Your task to perform on an android device: open wifi settings Image 0: 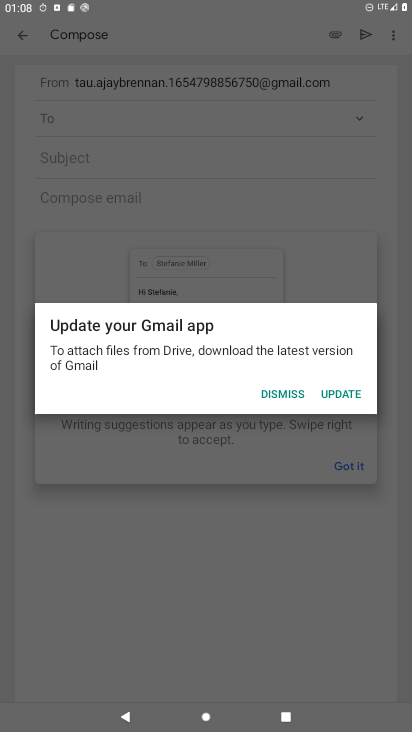
Step 0: press home button
Your task to perform on an android device: open wifi settings Image 1: 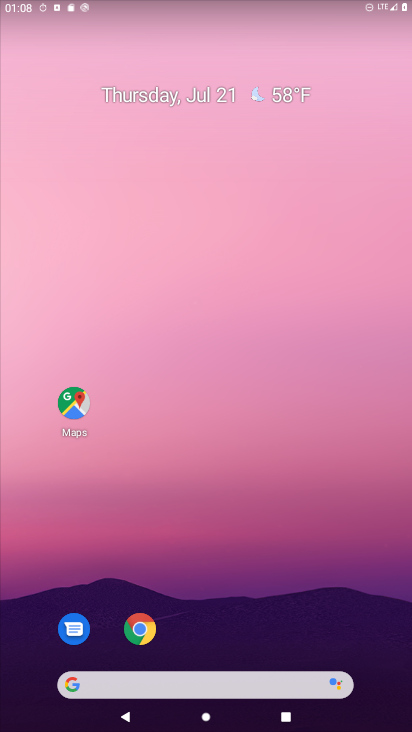
Step 1: drag from (265, 631) to (236, 198)
Your task to perform on an android device: open wifi settings Image 2: 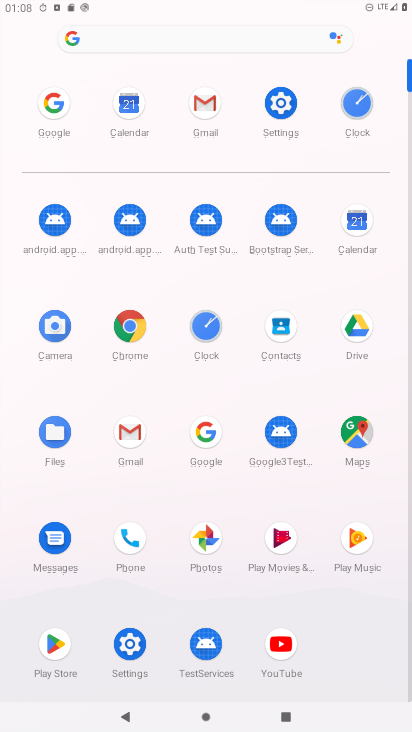
Step 2: click (298, 115)
Your task to perform on an android device: open wifi settings Image 3: 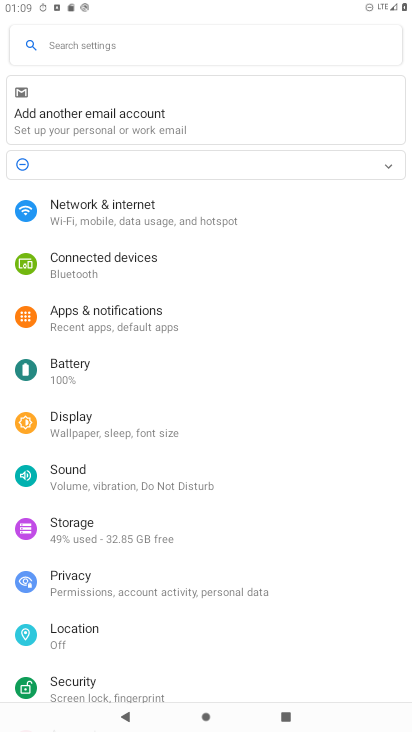
Step 3: click (111, 222)
Your task to perform on an android device: open wifi settings Image 4: 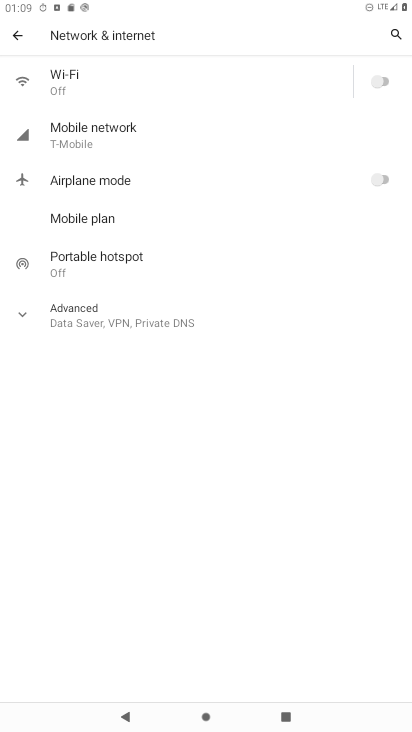
Step 4: click (106, 82)
Your task to perform on an android device: open wifi settings Image 5: 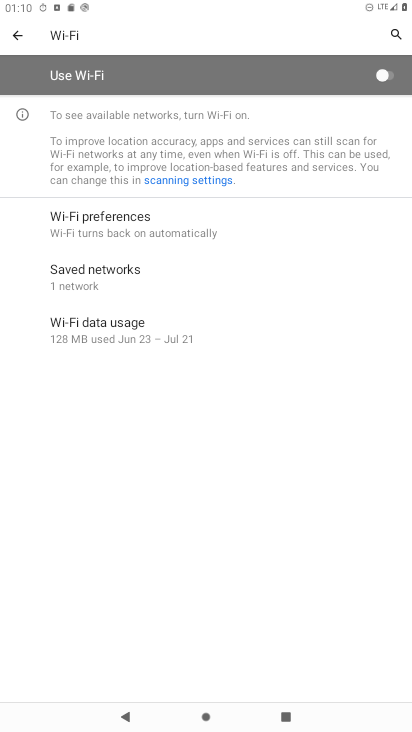
Step 5: task complete